Your task to perform on an android device: Open privacy settings Image 0: 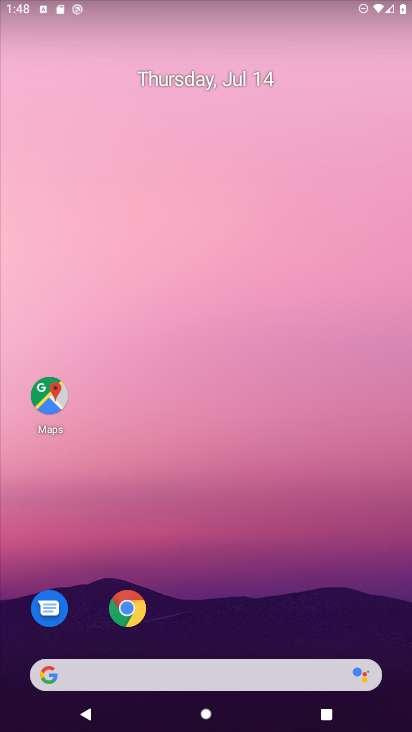
Step 0: drag from (378, 639) to (298, 46)
Your task to perform on an android device: Open privacy settings Image 1: 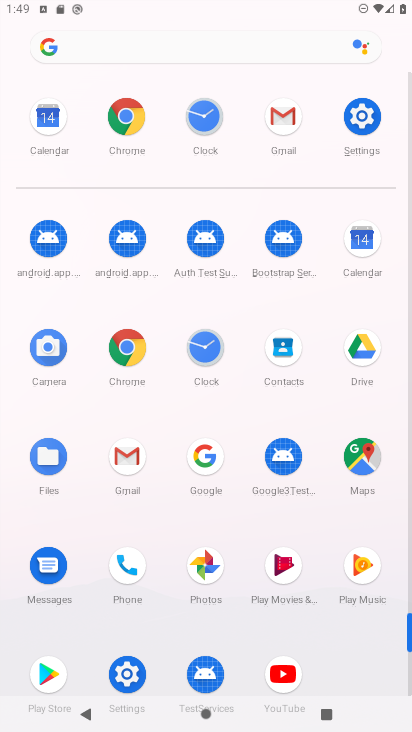
Step 1: click (125, 674)
Your task to perform on an android device: Open privacy settings Image 2: 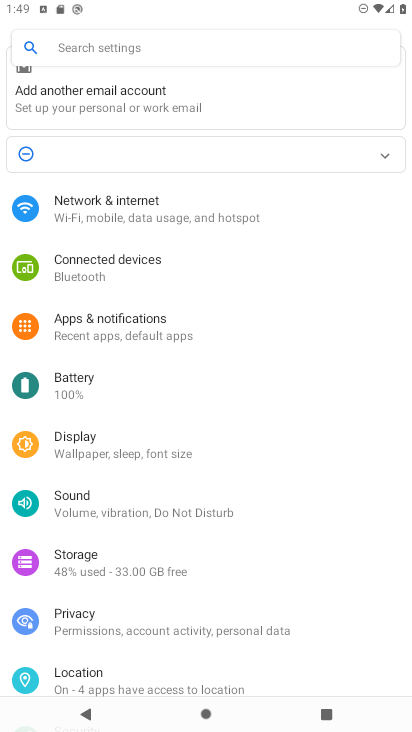
Step 2: click (86, 616)
Your task to perform on an android device: Open privacy settings Image 3: 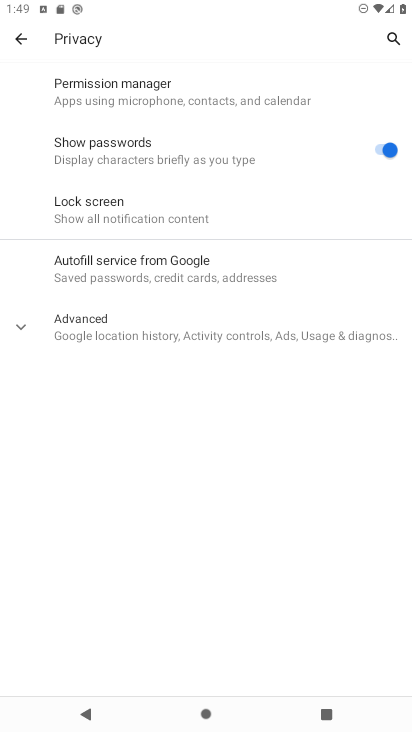
Step 3: click (16, 324)
Your task to perform on an android device: Open privacy settings Image 4: 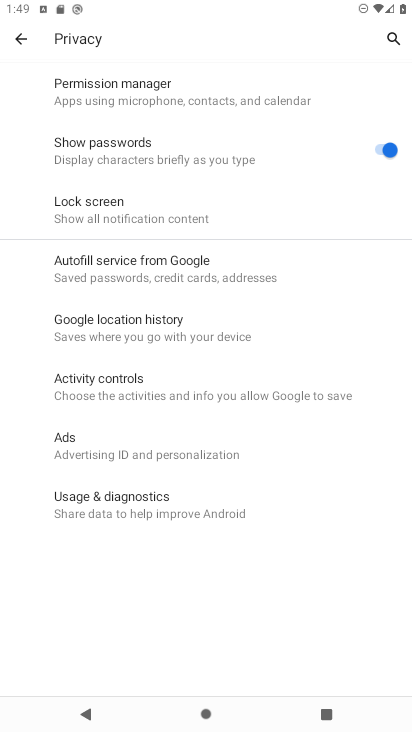
Step 4: task complete